Your task to perform on an android device: Search for flights from Barcelona to Mexico city Image 0: 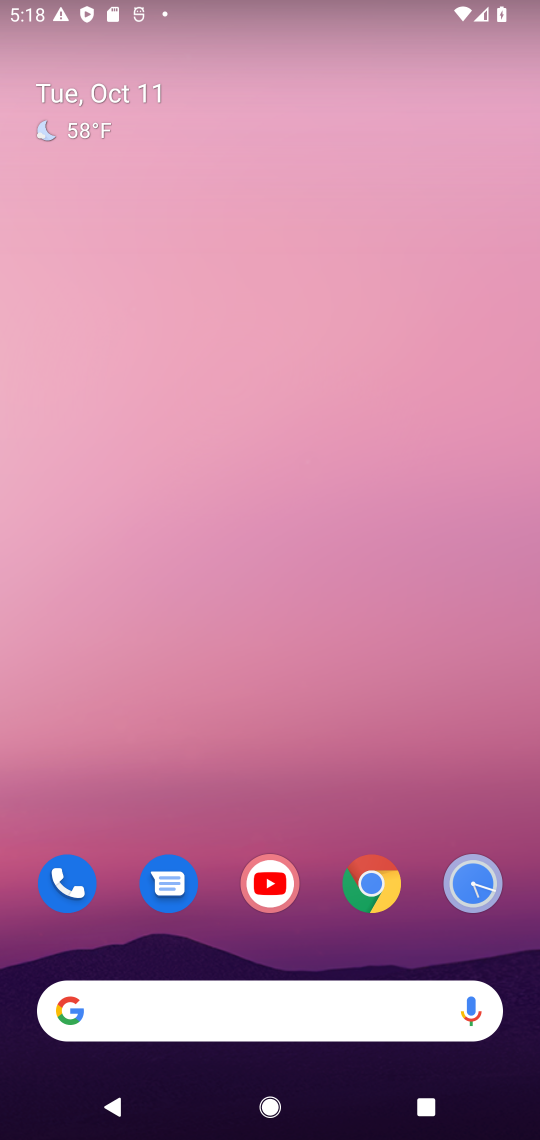
Step 0: drag from (315, 947) to (96, 45)
Your task to perform on an android device: Search for flights from Barcelona to Mexico city Image 1: 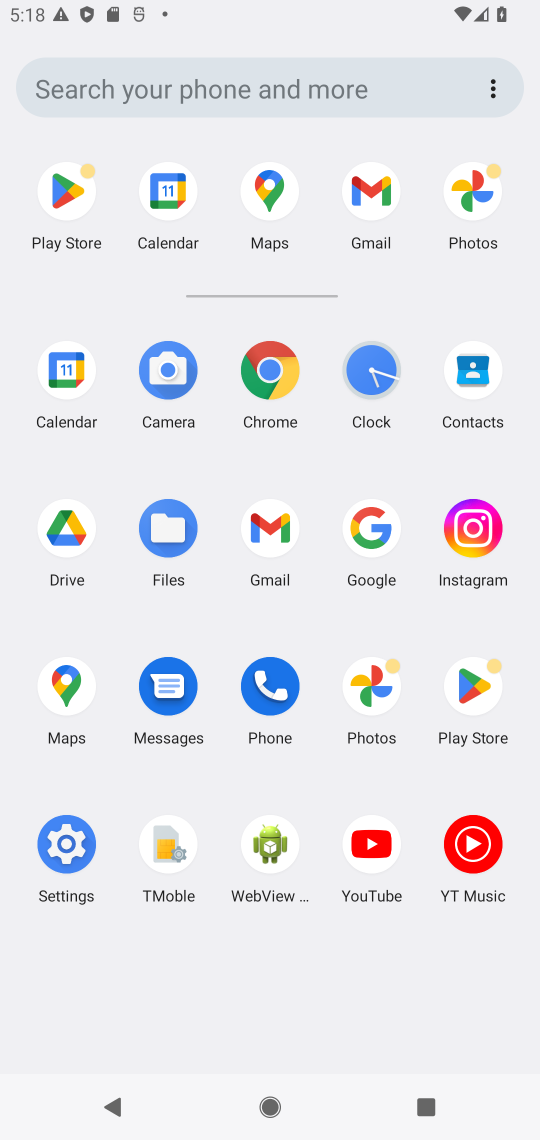
Step 1: click (279, 367)
Your task to perform on an android device: Search for flights from Barcelona to Mexico city Image 2: 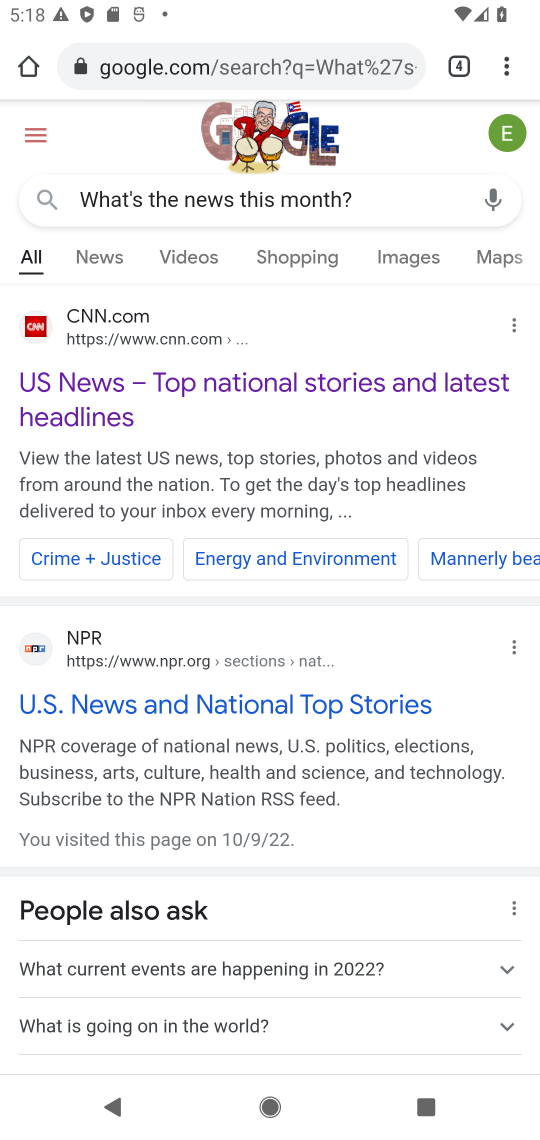
Step 2: click (298, 64)
Your task to perform on an android device: Search for flights from Barcelona to Mexico city Image 3: 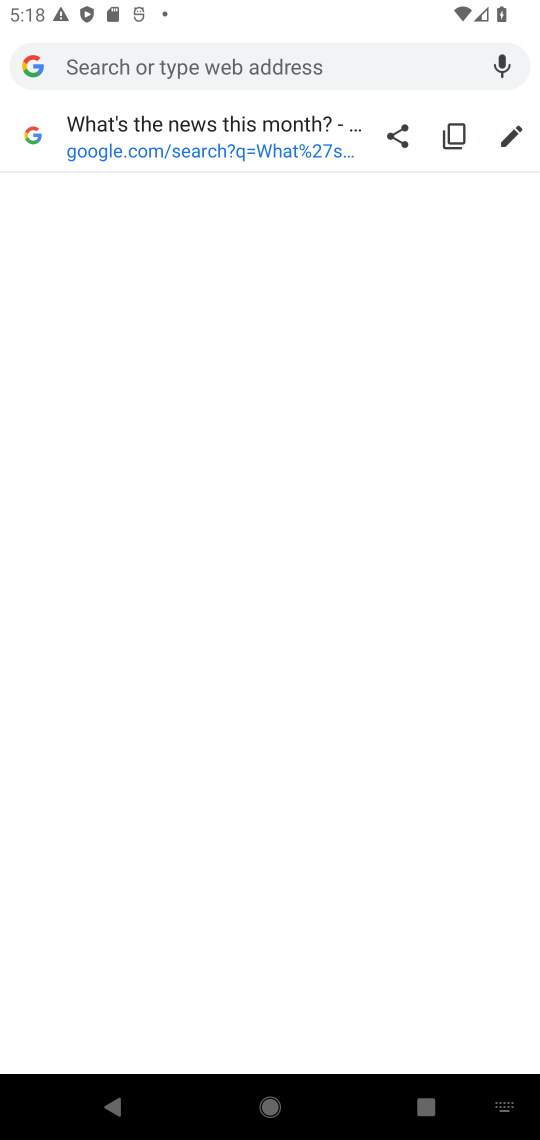
Step 3: type "flights from Barcelona to Mexico city"
Your task to perform on an android device: Search for flights from Barcelona to Mexico city Image 4: 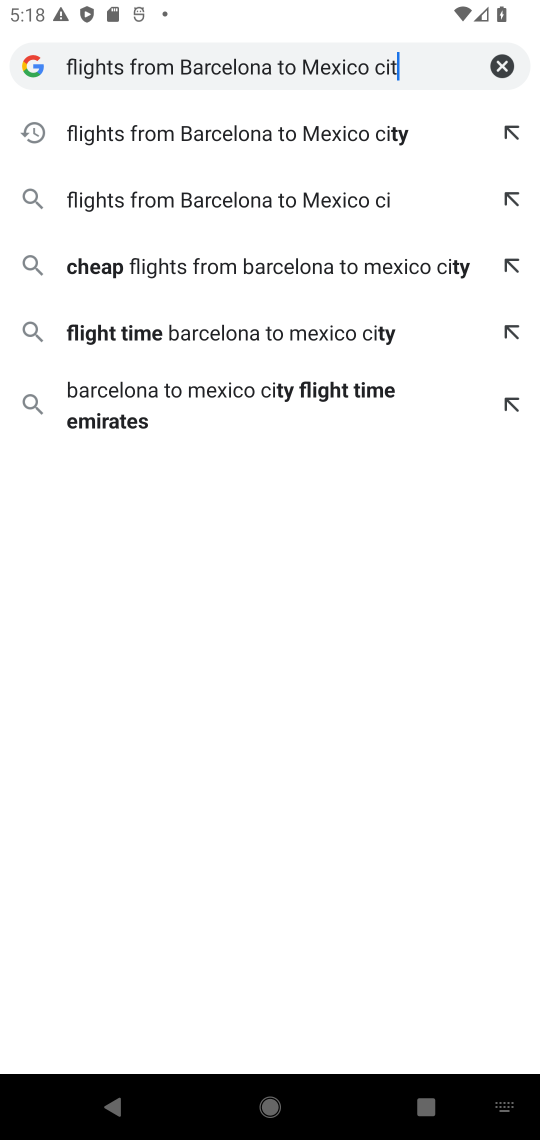
Step 4: press enter
Your task to perform on an android device: Search for flights from Barcelona to Mexico city Image 5: 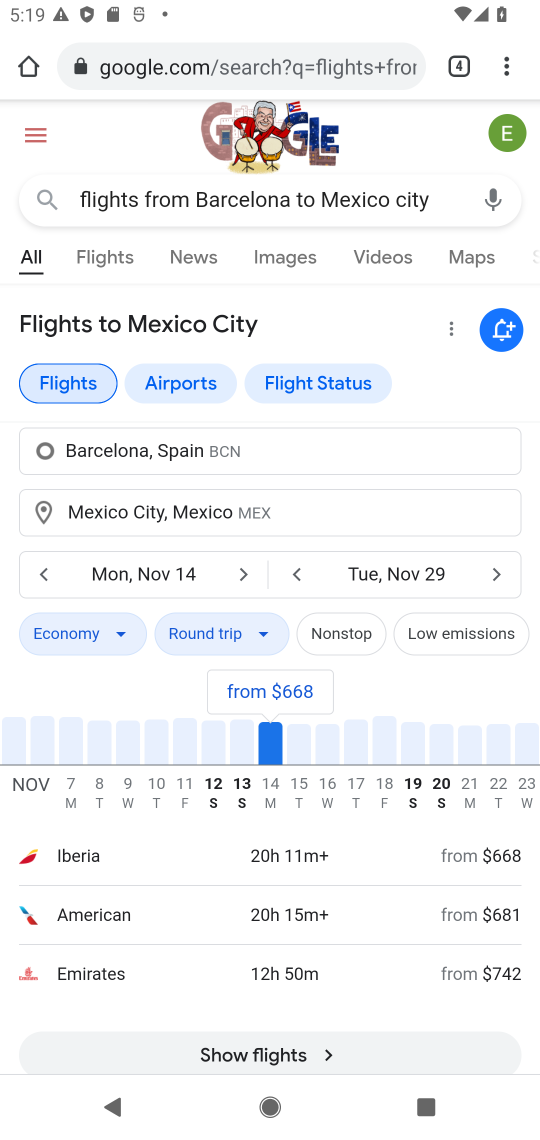
Step 5: task complete